Your task to perform on an android device: delete browsing data in the chrome app Image 0: 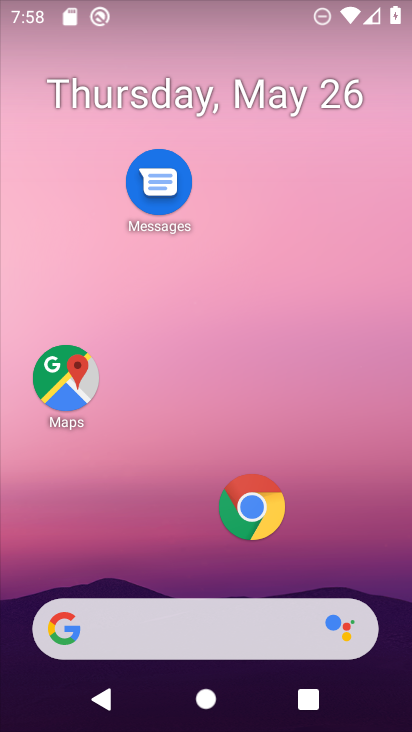
Step 0: click (227, 4)
Your task to perform on an android device: delete browsing data in the chrome app Image 1: 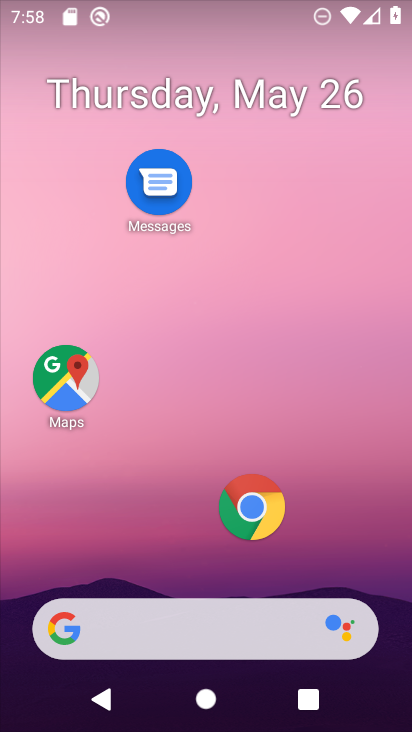
Step 1: drag from (163, 551) to (173, 4)
Your task to perform on an android device: delete browsing data in the chrome app Image 2: 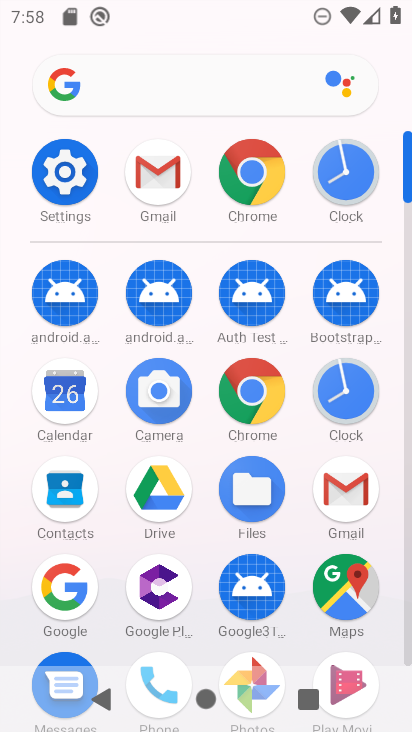
Step 2: click (250, 242)
Your task to perform on an android device: delete browsing data in the chrome app Image 3: 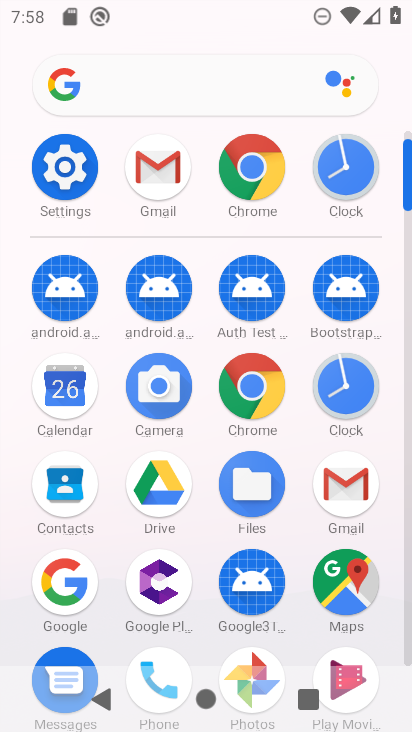
Step 3: click (250, 196)
Your task to perform on an android device: delete browsing data in the chrome app Image 4: 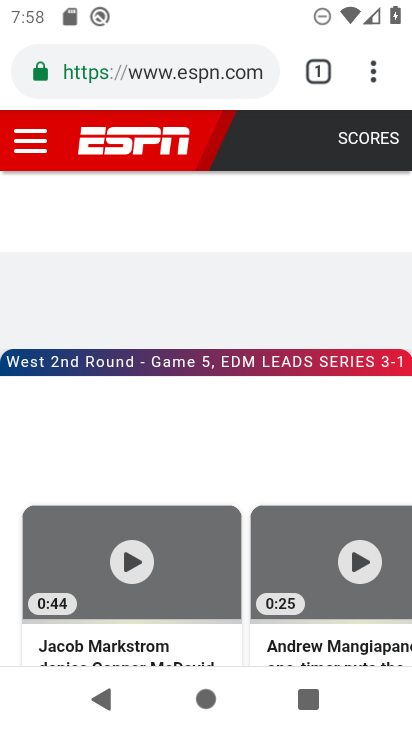
Step 4: click (373, 73)
Your task to perform on an android device: delete browsing data in the chrome app Image 5: 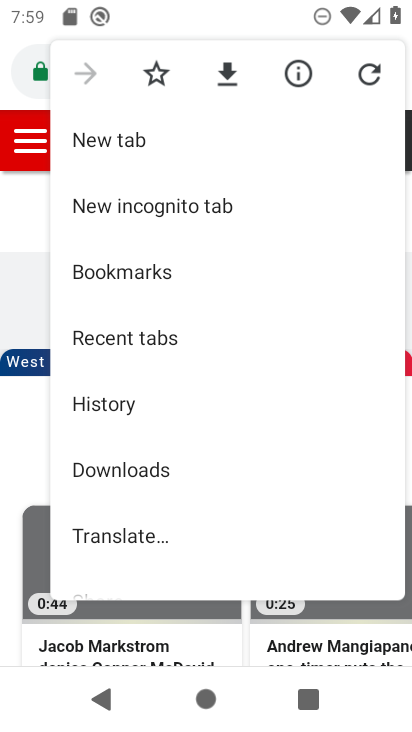
Step 5: click (166, 415)
Your task to perform on an android device: delete browsing data in the chrome app Image 6: 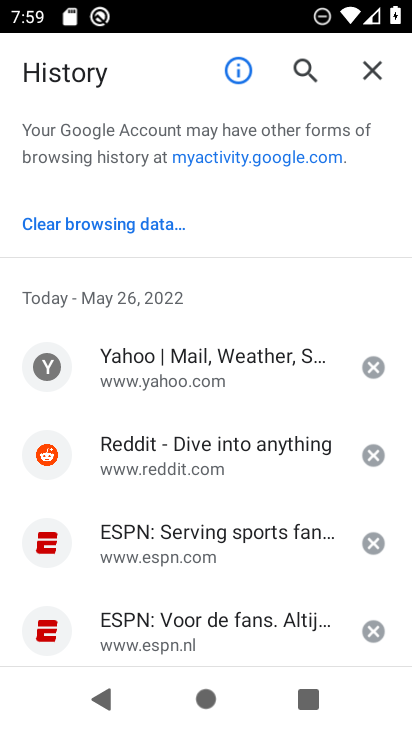
Step 6: click (119, 227)
Your task to perform on an android device: delete browsing data in the chrome app Image 7: 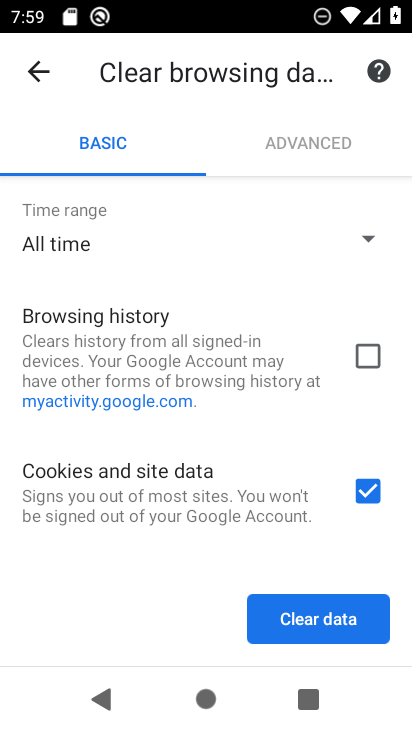
Step 7: click (352, 372)
Your task to perform on an android device: delete browsing data in the chrome app Image 8: 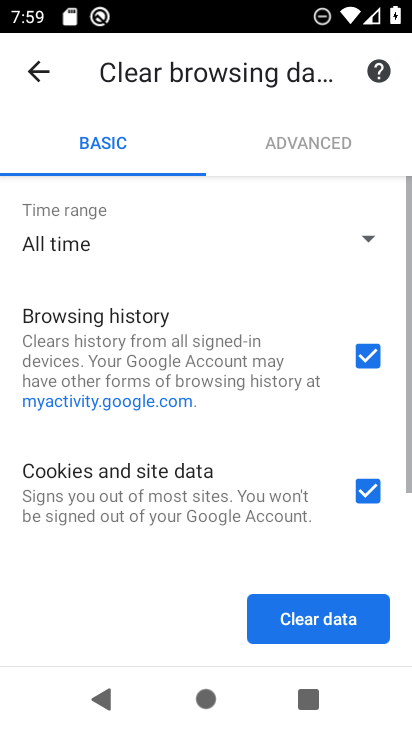
Step 8: drag from (235, 546) to (238, 162)
Your task to perform on an android device: delete browsing data in the chrome app Image 9: 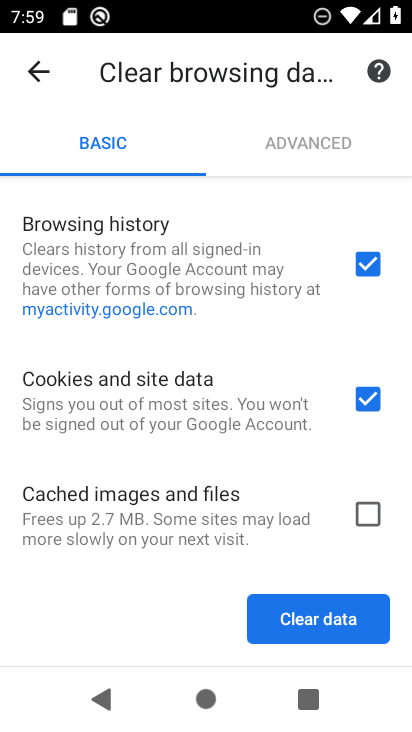
Step 9: click (370, 526)
Your task to perform on an android device: delete browsing data in the chrome app Image 10: 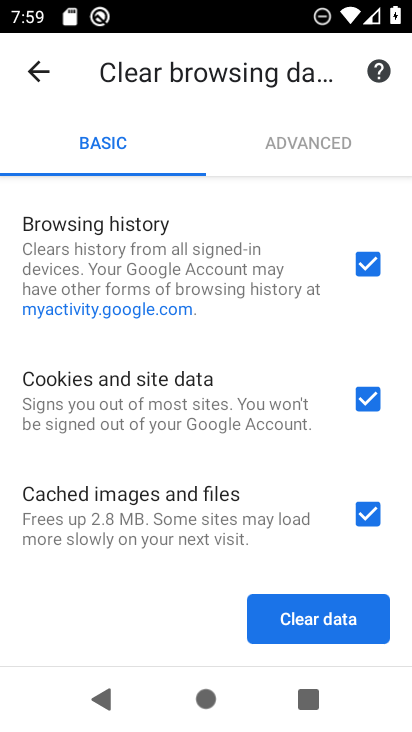
Step 10: click (268, 641)
Your task to perform on an android device: delete browsing data in the chrome app Image 11: 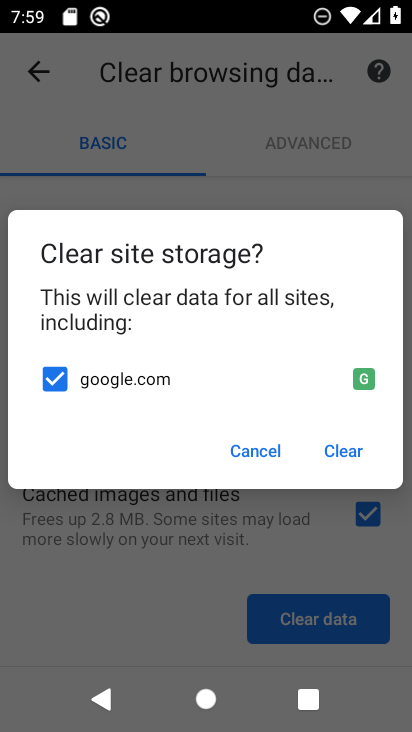
Step 11: click (348, 450)
Your task to perform on an android device: delete browsing data in the chrome app Image 12: 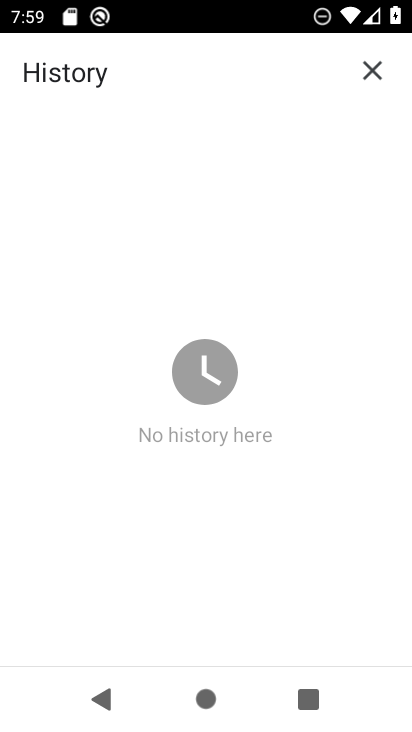
Step 12: task complete